Your task to perform on an android device: move a message to another label in the gmail app Image 0: 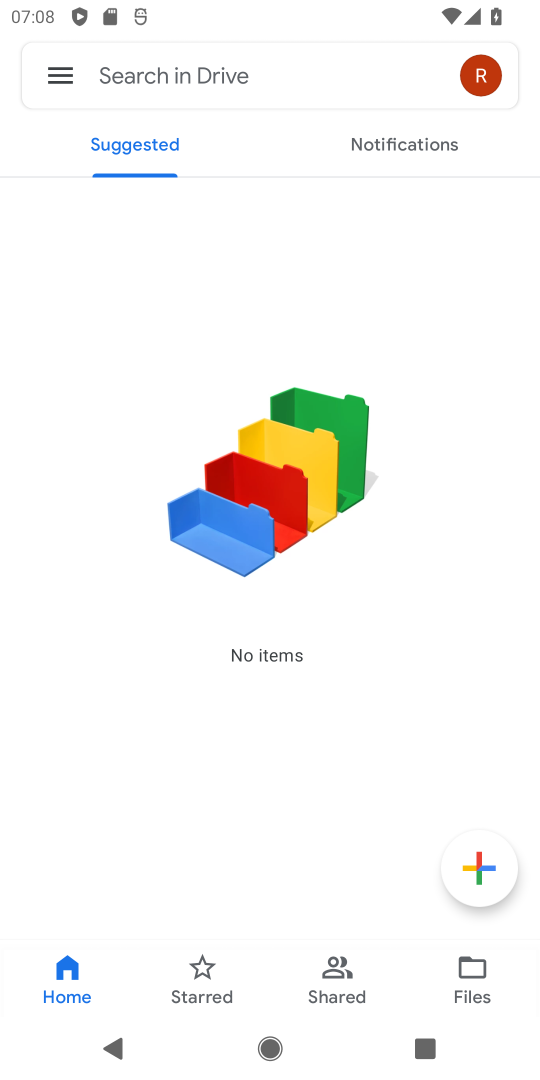
Step 0: press home button
Your task to perform on an android device: move a message to another label in the gmail app Image 1: 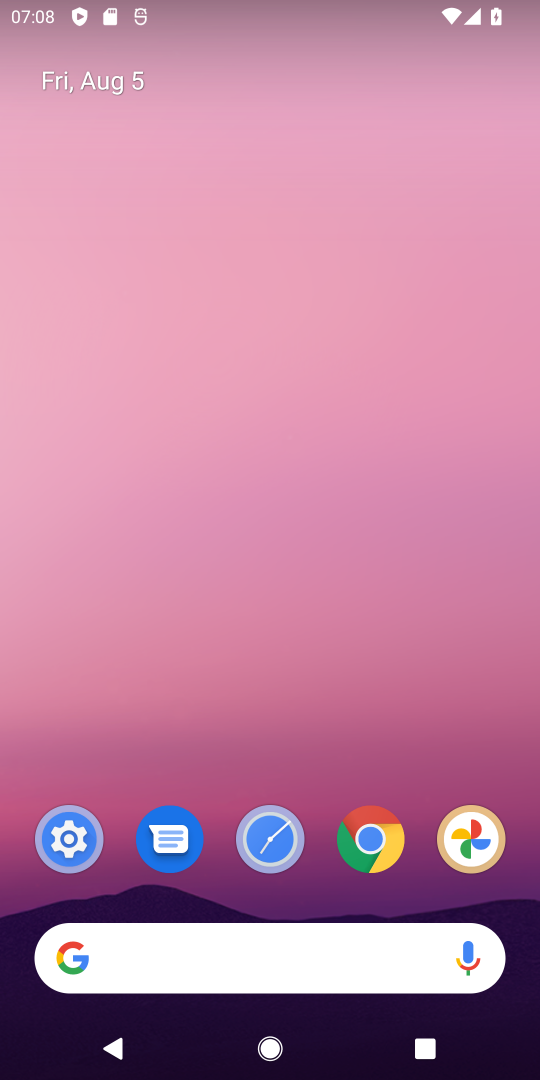
Step 1: drag from (329, 822) to (330, 123)
Your task to perform on an android device: move a message to another label in the gmail app Image 2: 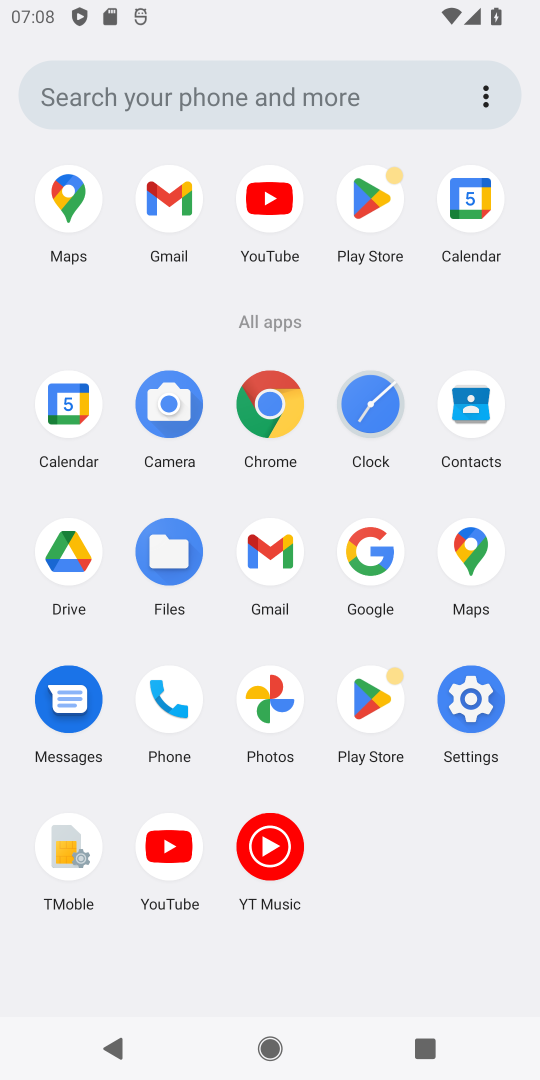
Step 2: click (269, 549)
Your task to perform on an android device: move a message to another label in the gmail app Image 3: 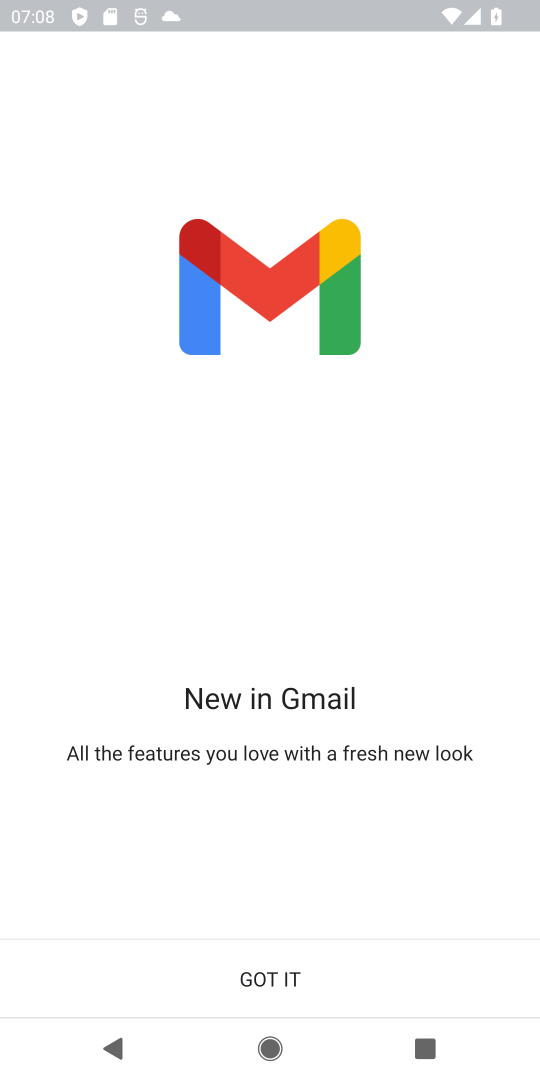
Step 3: click (277, 971)
Your task to perform on an android device: move a message to another label in the gmail app Image 4: 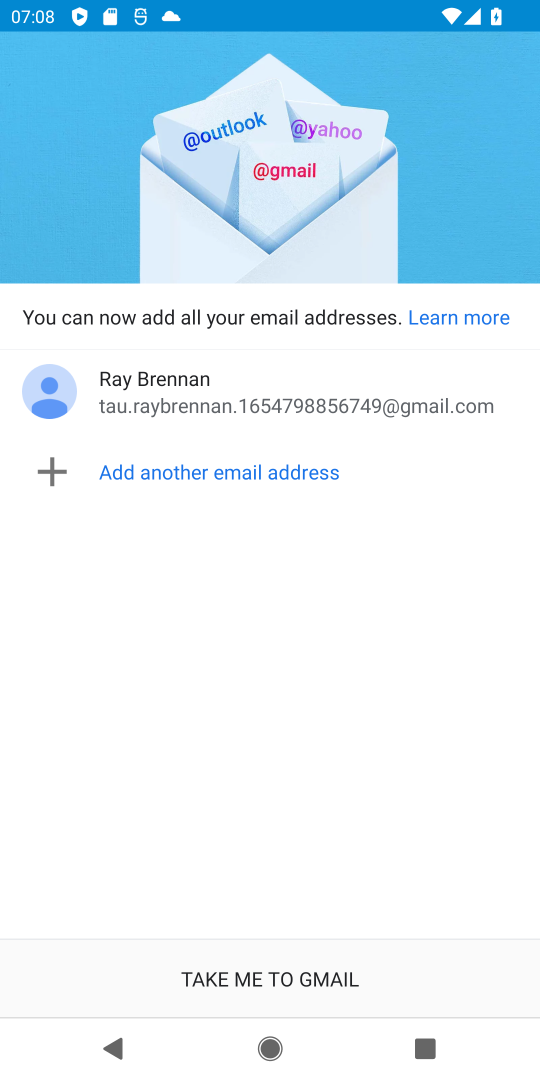
Step 4: click (258, 977)
Your task to perform on an android device: move a message to another label in the gmail app Image 5: 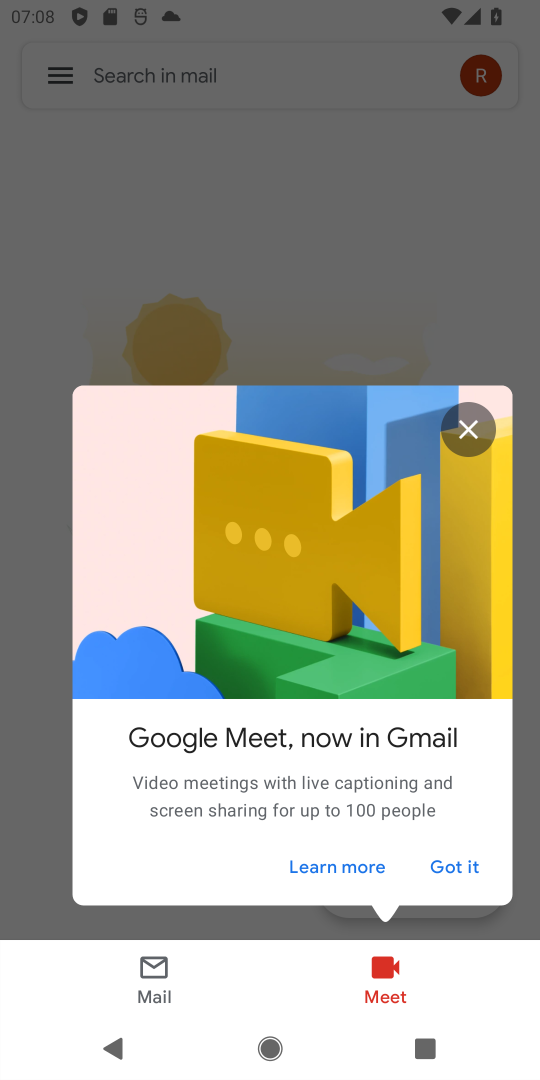
Step 5: click (454, 866)
Your task to perform on an android device: move a message to another label in the gmail app Image 6: 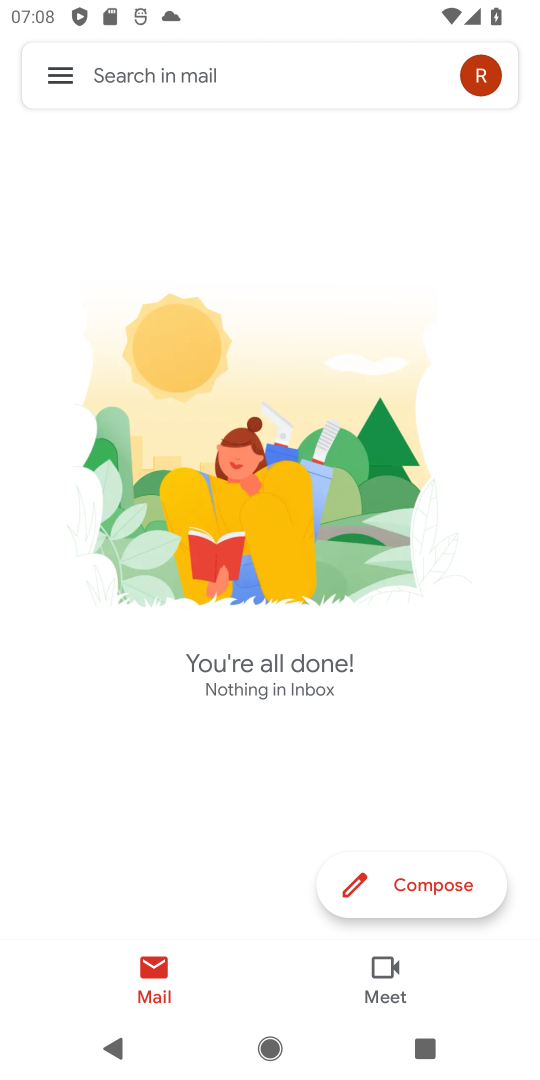
Step 6: task complete